Your task to perform on an android device: Open battery settings Image 0: 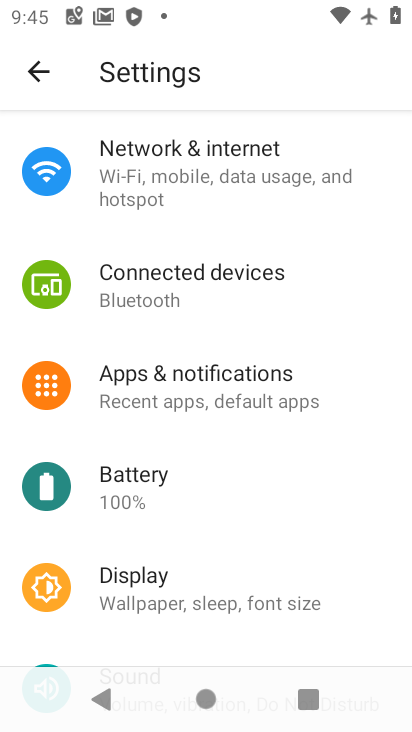
Step 0: click (178, 467)
Your task to perform on an android device: Open battery settings Image 1: 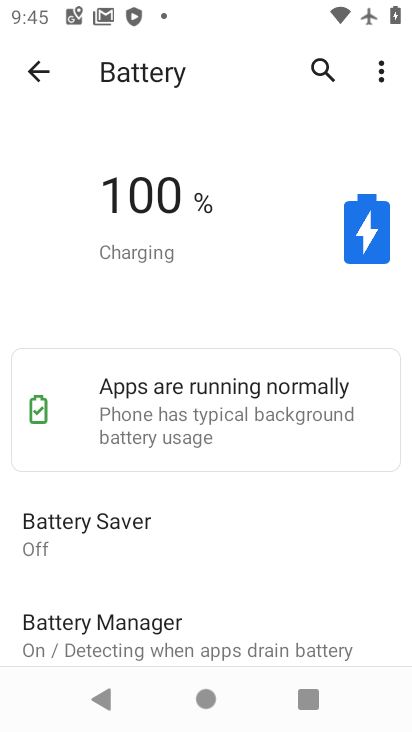
Step 1: task complete